Your task to perform on an android device: see sites visited before in the chrome app Image 0: 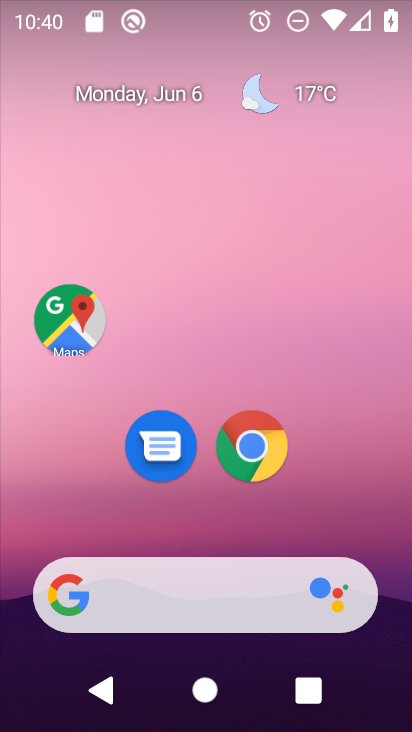
Step 0: click (245, 454)
Your task to perform on an android device: see sites visited before in the chrome app Image 1: 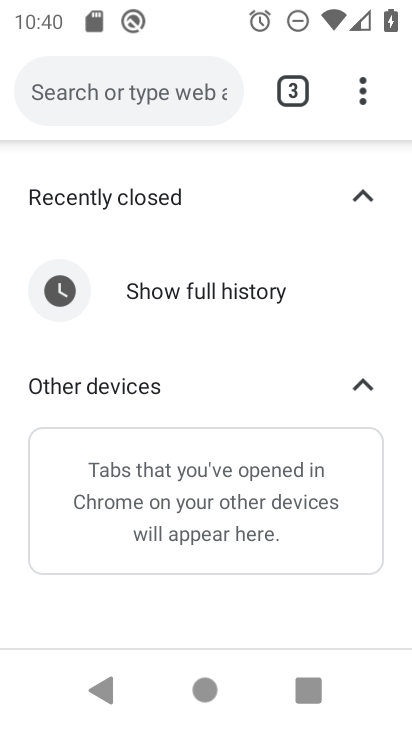
Step 1: task complete